Your task to perform on an android device: toggle location history Image 0: 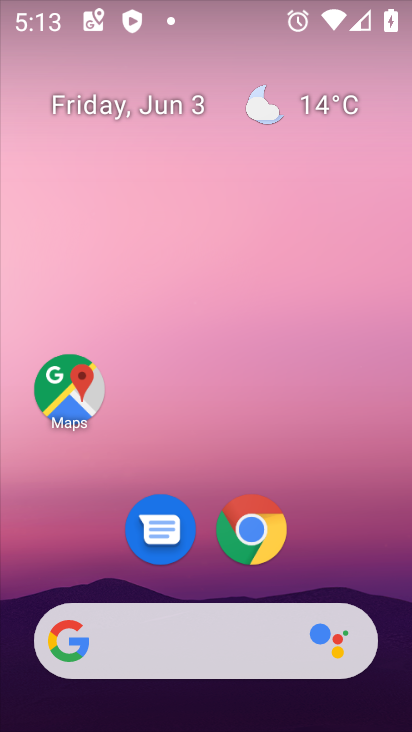
Step 0: drag from (209, 568) to (237, 45)
Your task to perform on an android device: toggle location history Image 1: 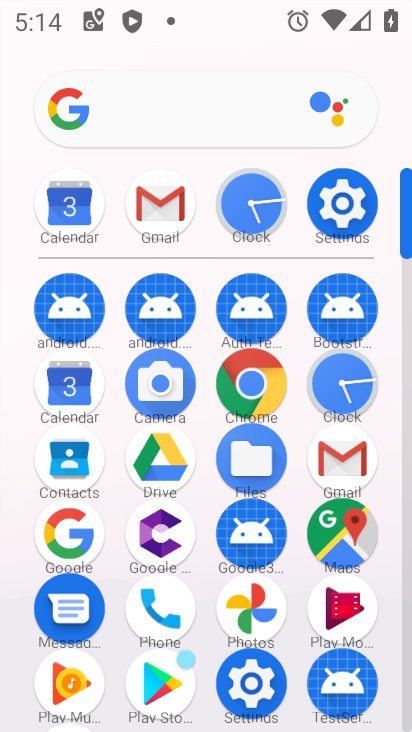
Step 1: click (339, 531)
Your task to perform on an android device: toggle location history Image 2: 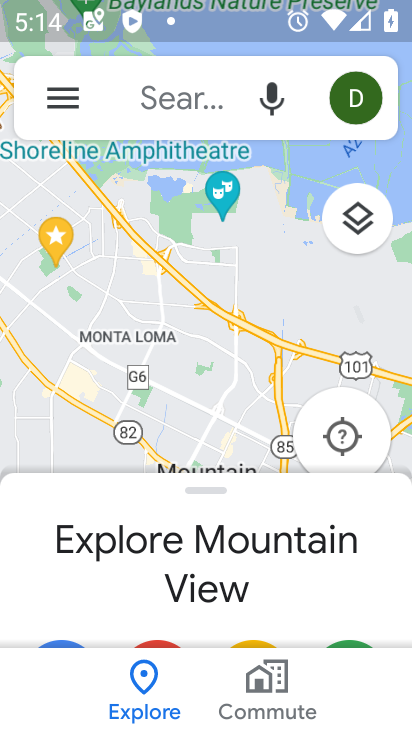
Step 2: click (61, 93)
Your task to perform on an android device: toggle location history Image 3: 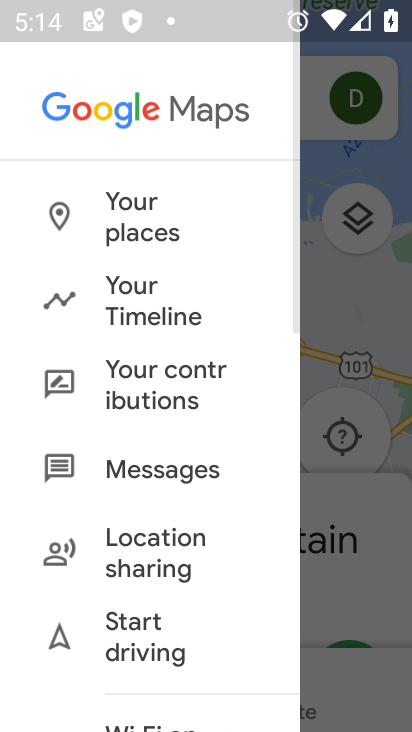
Step 3: drag from (131, 559) to (188, 19)
Your task to perform on an android device: toggle location history Image 4: 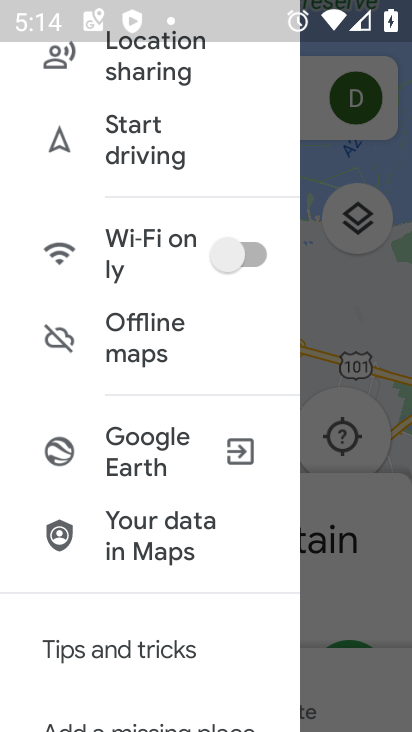
Step 4: drag from (137, 651) to (169, 298)
Your task to perform on an android device: toggle location history Image 5: 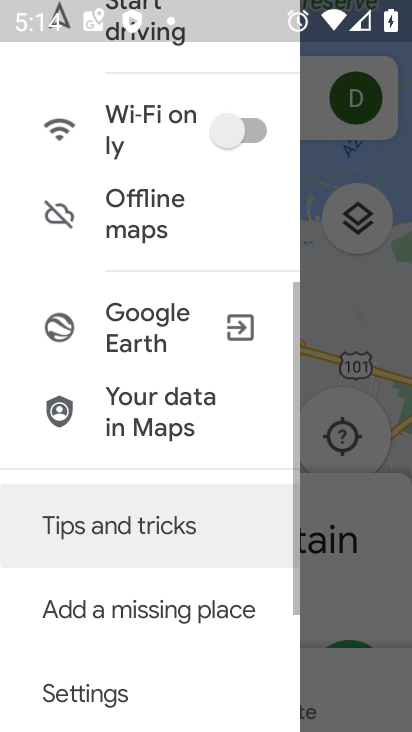
Step 5: click (183, 23)
Your task to perform on an android device: toggle location history Image 6: 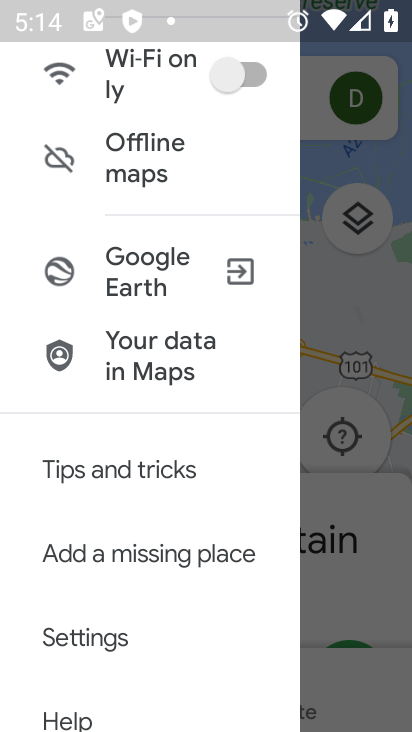
Step 6: click (119, 626)
Your task to perform on an android device: toggle location history Image 7: 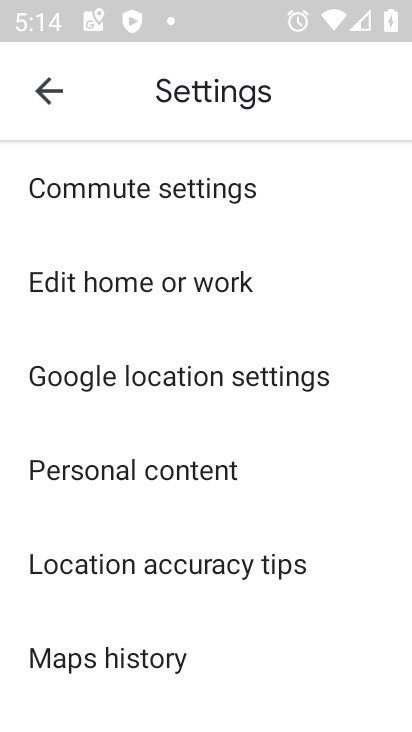
Step 7: click (258, 377)
Your task to perform on an android device: toggle location history Image 8: 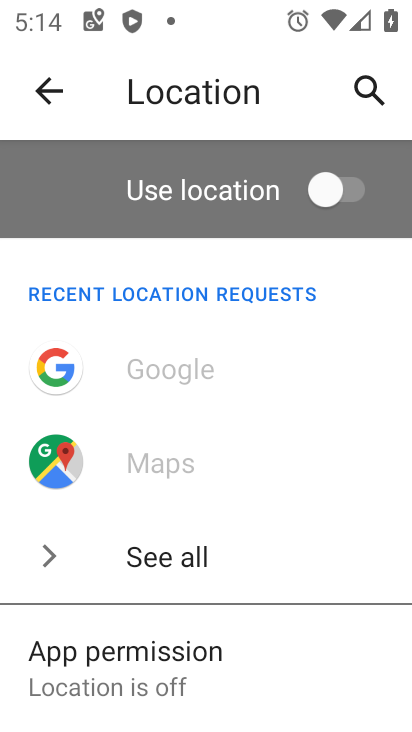
Step 8: drag from (225, 683) to (253, 437)
Your task to perform on an android device: toggle location history Image 9: 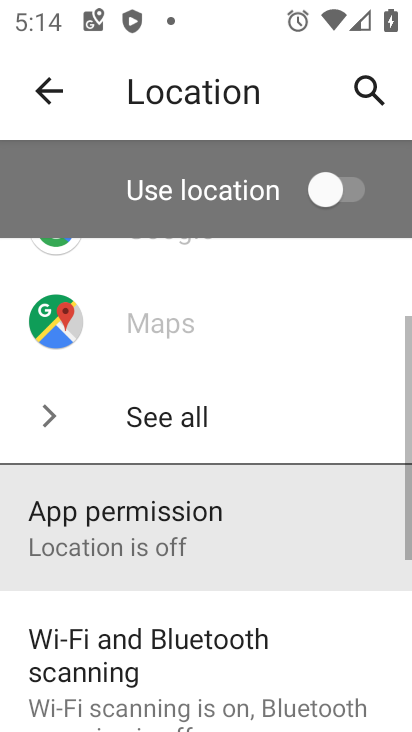
Step 9: drag from (255, 325) to (258, 177)
Your task to perform on an android device: toggle location history Image 10: 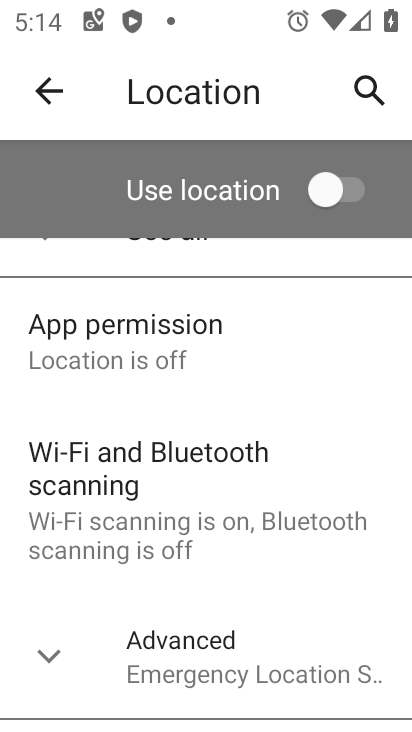
Step 10: click (84, 654)
Your task to perform on an android device: toggle location history Image 11: 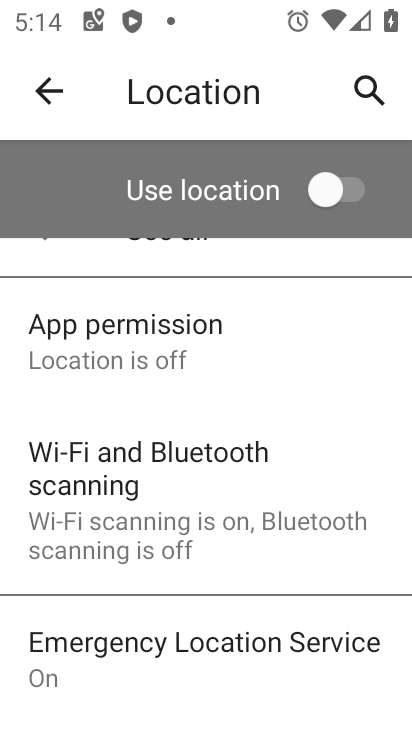
Step 11: drag from (236, 613) to (239, 266)
Your task to perform on an android device: toggle location history Image 12: 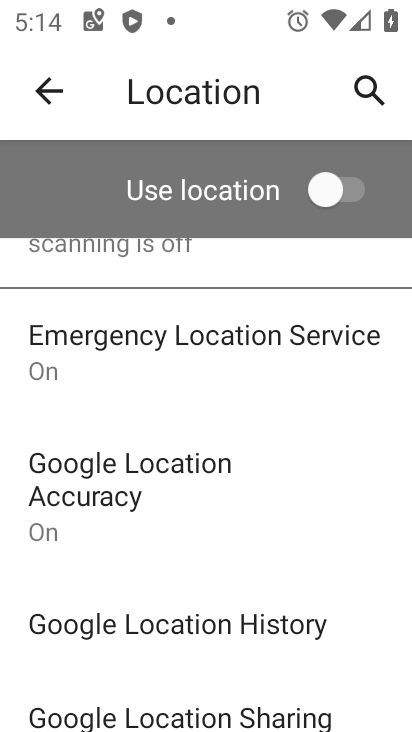
Step 12: click (229, 637)
Your task to perform on an android device: toggle location history Image 13: 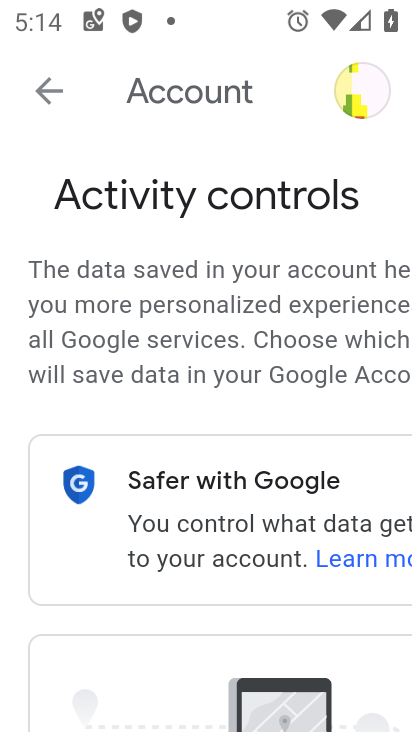
Step 13: drag from (199, 642) to (204, 388)
Your task to perform on an android device: toggle location history Image 14: 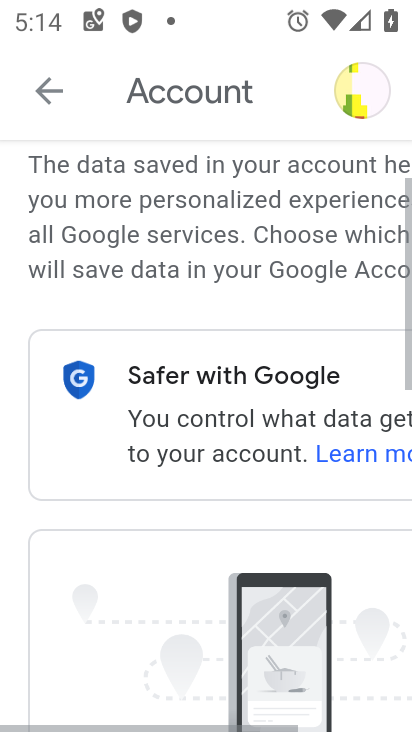
Step 14: drag from (207, 287) to (215, 219)
Your task to perform on an android device: toggle location history Image 15: 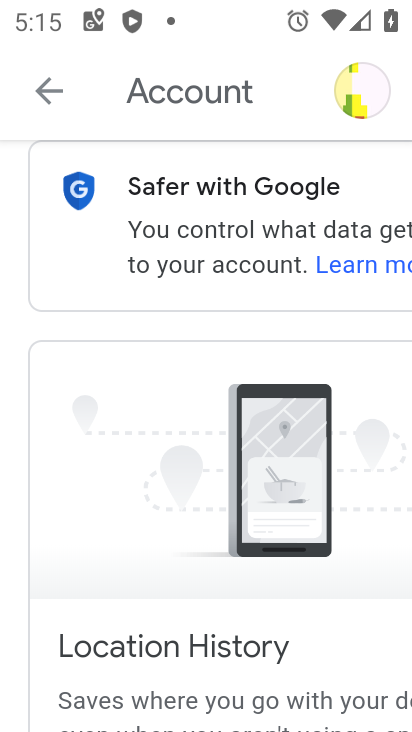
Step 15: drag from (190, 596) to (182, 252)
Your task to perform on an android device: toggle location history Image 16: 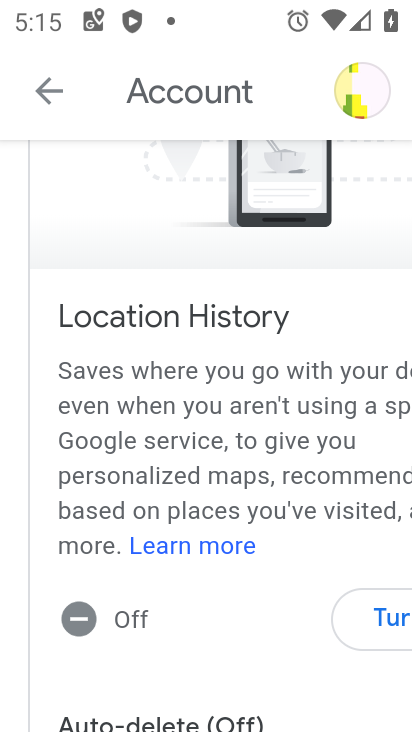
Step 16: click (385, 620)
Your task to perform on an android device: toggle location history Image 17: 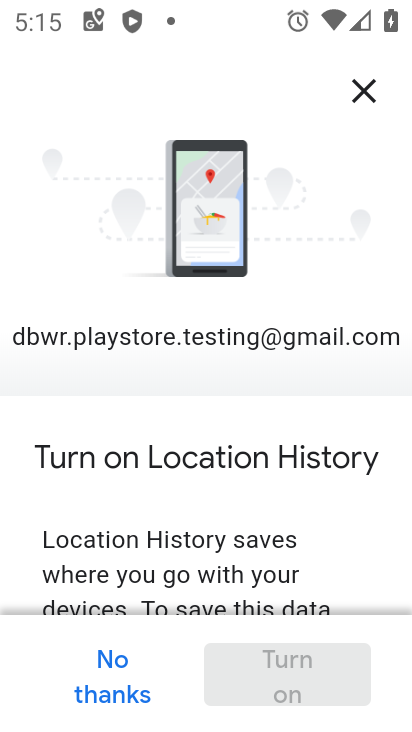
Step 17: drag from (276, 579) to (263, 86)
Your task to perform on an android device: toggle location history Image 18: 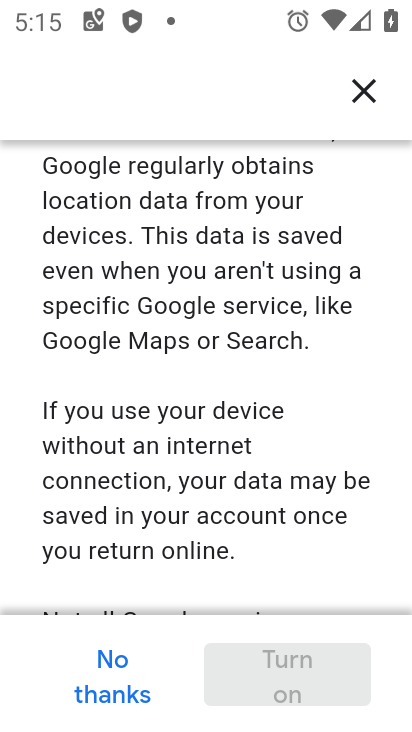
Step 18: drag from (253, 568) to (257, 2)
Your task to perform on an android device: toggle location history Image 19: 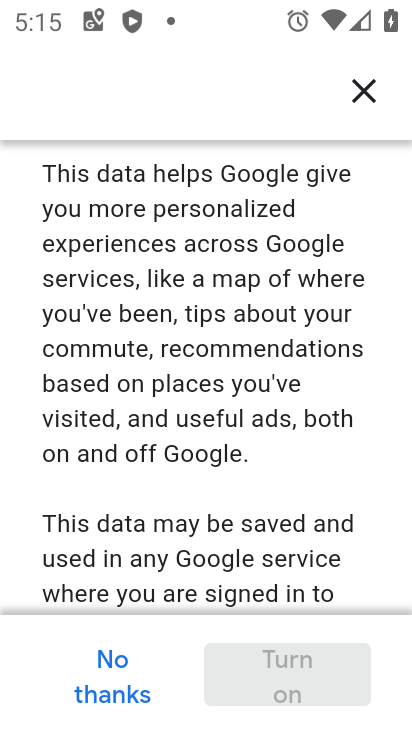
Step 19: drag from (244, 546) to (235, 21)
Your task to perform on an android device: toggle location history Image 20: 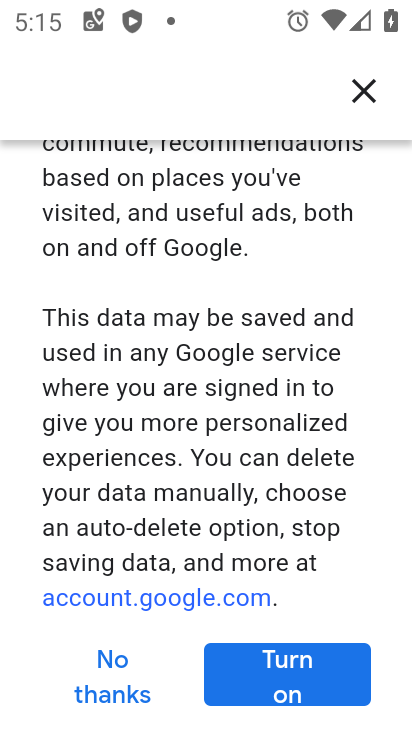
Step 20: click (286, 670)
Your task to perform on an android device: toggle location history Image 21: 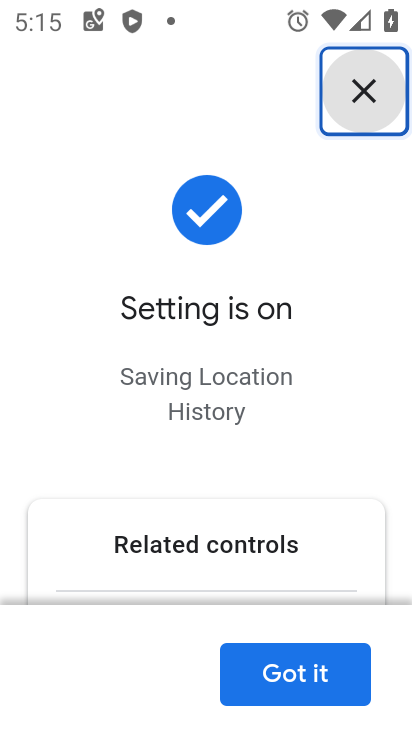
Step 21: click (285, 668)
Your task to perform on an android device: toggle location history Image 22: 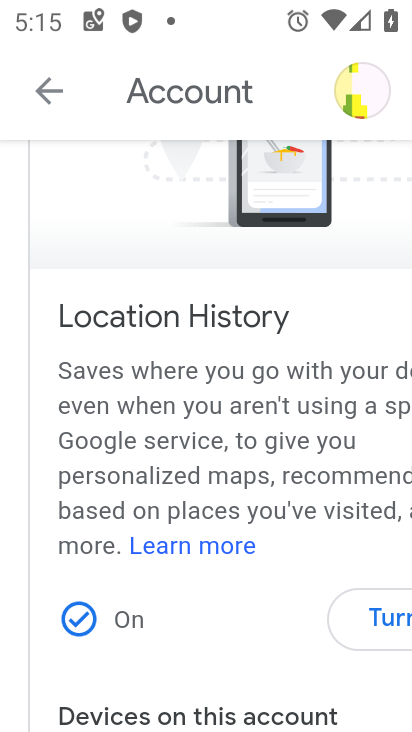
Step 22: press home button
Your task to perform on an android device: toggle location history Image 23: 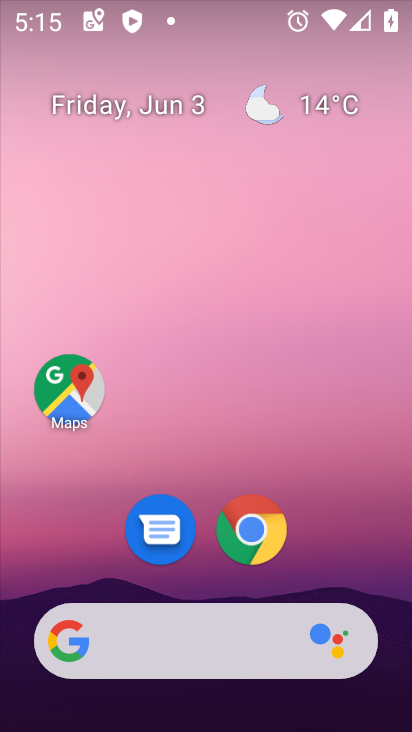
Step 23: drag from (214, 532) to (251, 25)
Your task to perform on an android device: toggle location history Image 24: 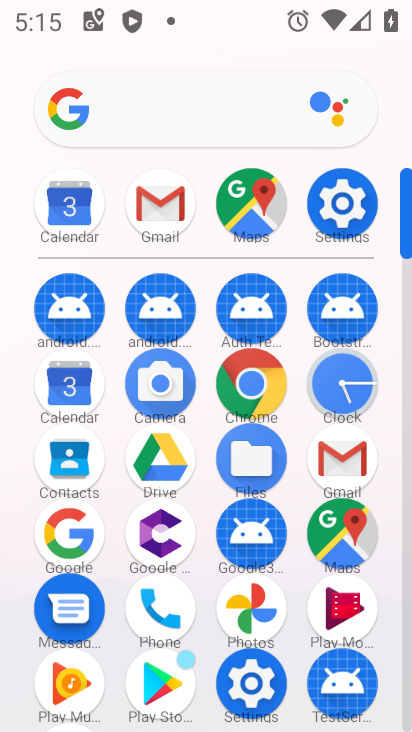
Step 24: click (244, 671)
Your task to perform on an android device: toggle location history Image 25: 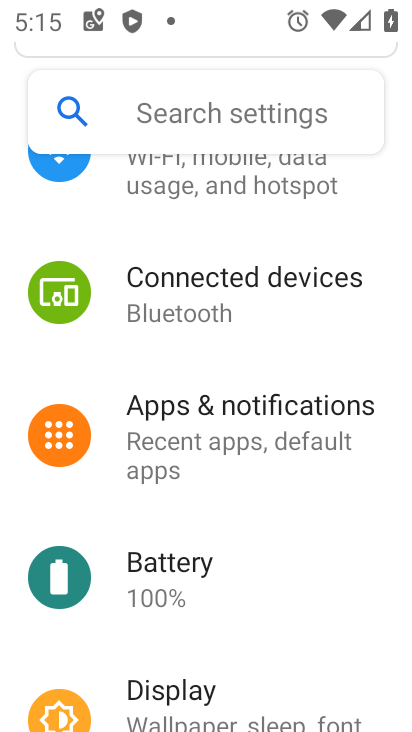
Step 25: drag from (240, 673) to (269, 191)
Your task to perform on an android device: toggle location history Image 26: 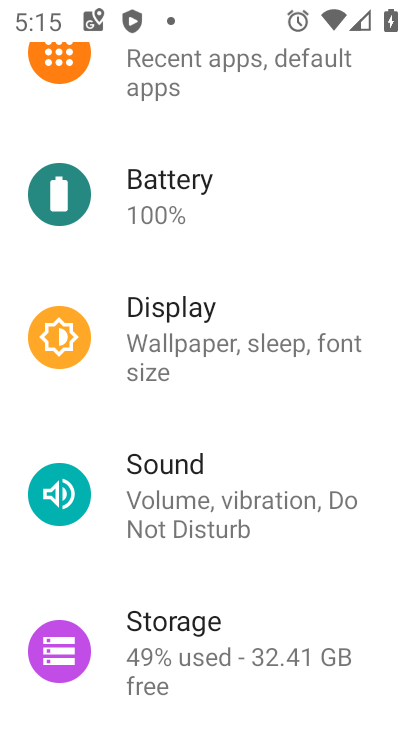
Step 26: drag from (216, 665) to (227, 152)
Your task to perform on an android device: toggle location history Image 27: 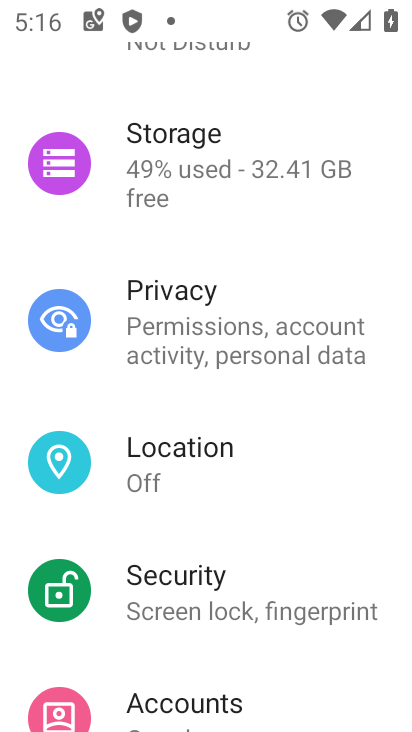
Step 27: click (211, 460)
Your task to perform on an android device: toggle location history Image 28: 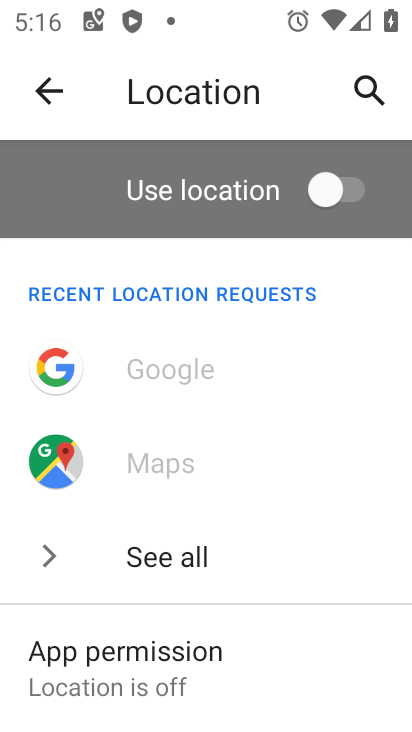
Step 28: drag from (238, 671) to (273, 244)
Your task to perform on an android device: toggle location history Image 29: 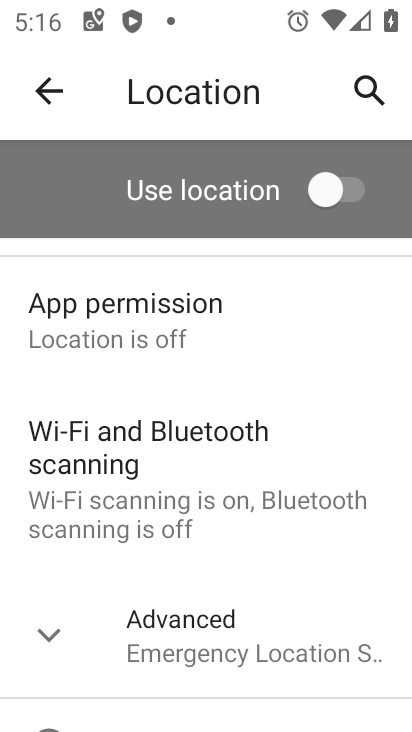
Step 29: click (40, 633)
Your task to perform on an android device: toggle location history Image 30: 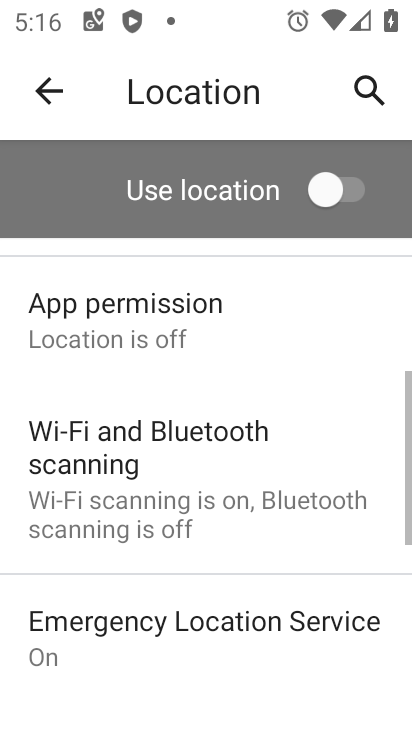
Step 30: drag from (180, 653) to (200, 186)
Your task to perform on an android device: toggle location history Image 31: 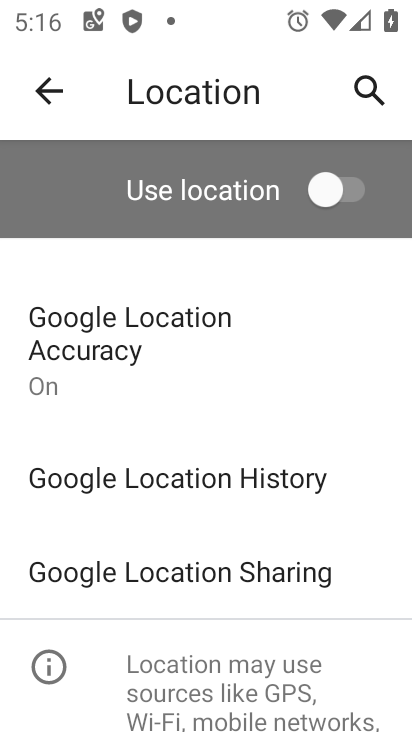
Step 31: click (273, 488)
Your task to perform on an android device: toggle location history Image 32: 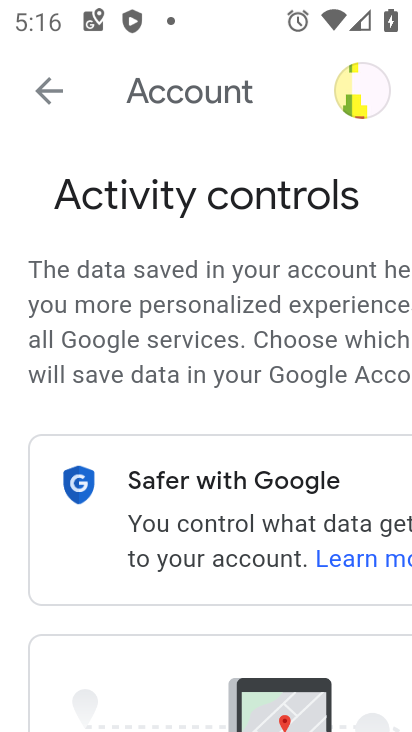
Step 32: drag from (195, 511) to (216, 207)
Your task to perform on an android device: toggle location history Image 33: 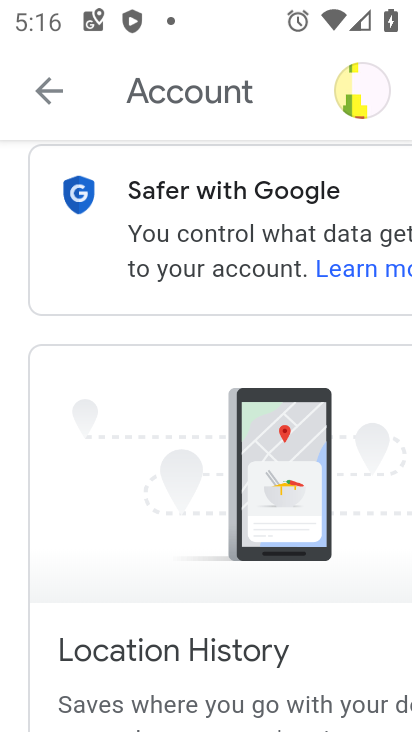
Step 33: drag from (195, 597) to (195, 197)
Your task to perform on an android device: toggle location history Image 34: 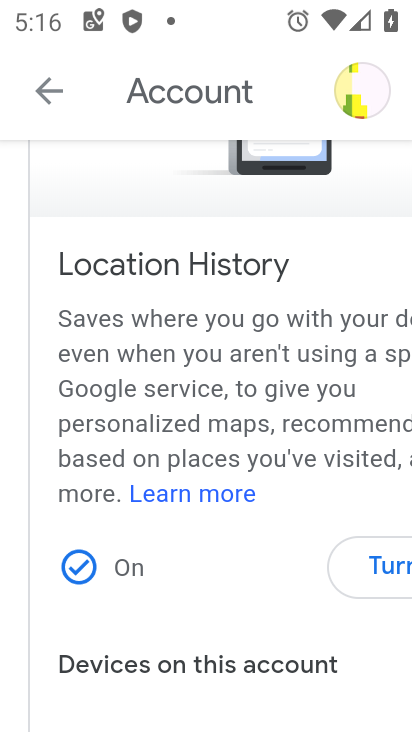
Step 34: click (387, 573)
Your task to perform on an android device: toggle location history Image 35: 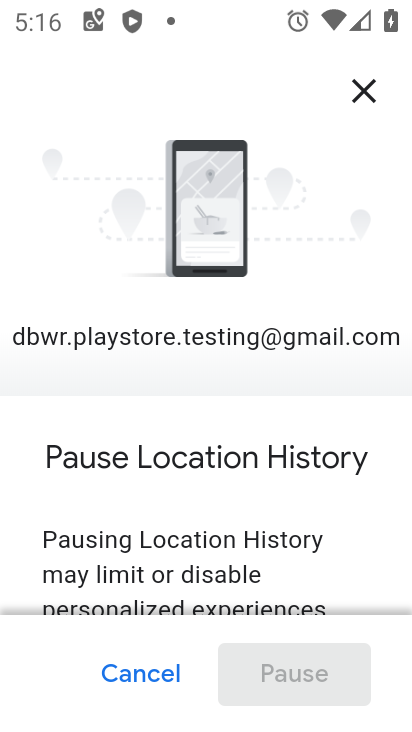
Step 35: drag from (288, 567) to (288, 169)
Your task to perform on an android device: toggle location history Image 36: 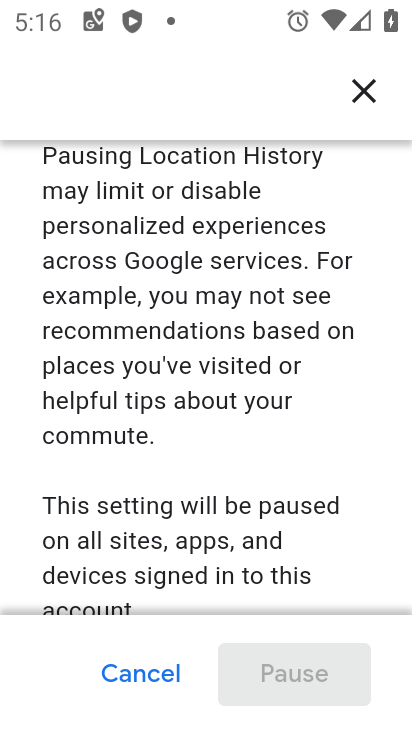
Step 36: drag from (238, 591) to (247, 70)
Your task to perform on an android device: toggle location history Image 37: 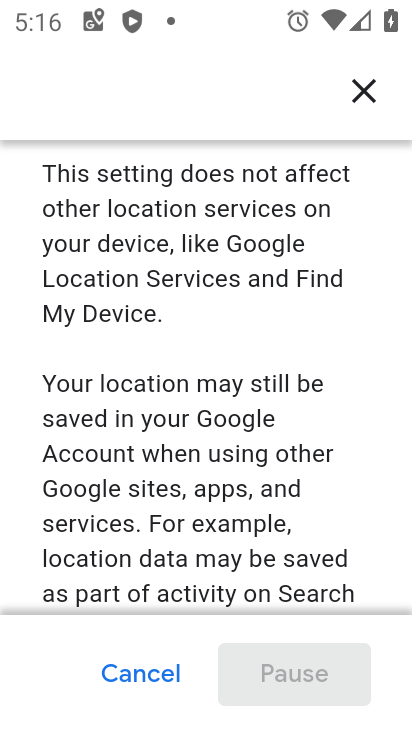
Step 37: click (248, 565)
Your task to perform on an android device: toggle location history Image 38: 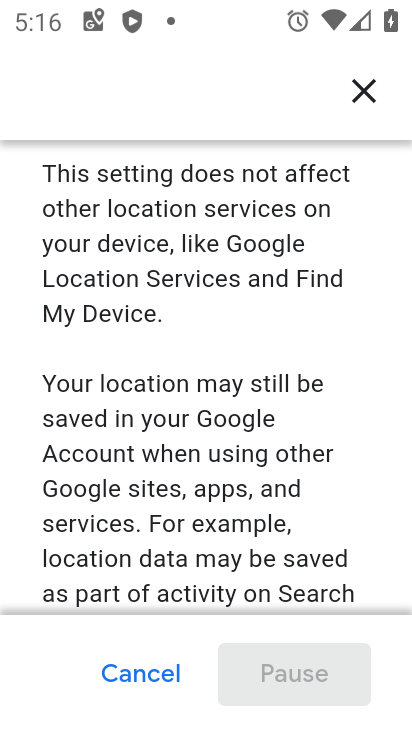
Step 38: drag from (248, 278) to (248, 121)
Your task to perform on an android device: toggle location history Image 39: 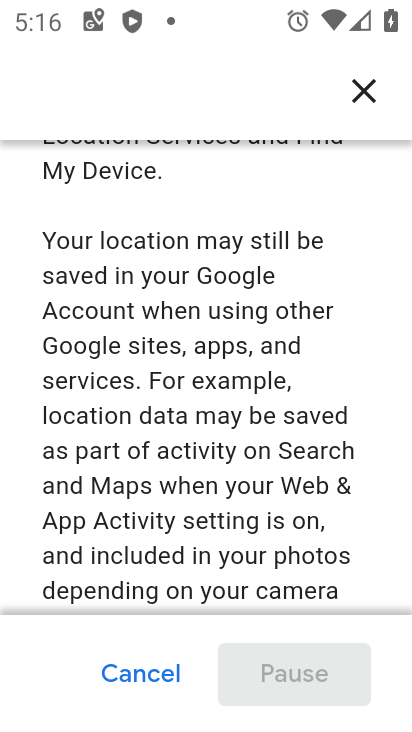
Step 39: drag from (271, 601) to (273, 296)
Your task to perform on an android device: toggle location history Image 40: 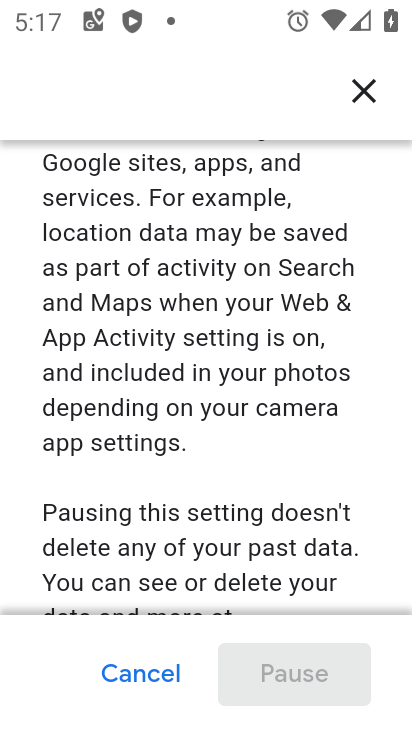
Step 40: drag from (275, 169) to (275, 115)
Your task to perform on an android device: toggle location history Image 41: 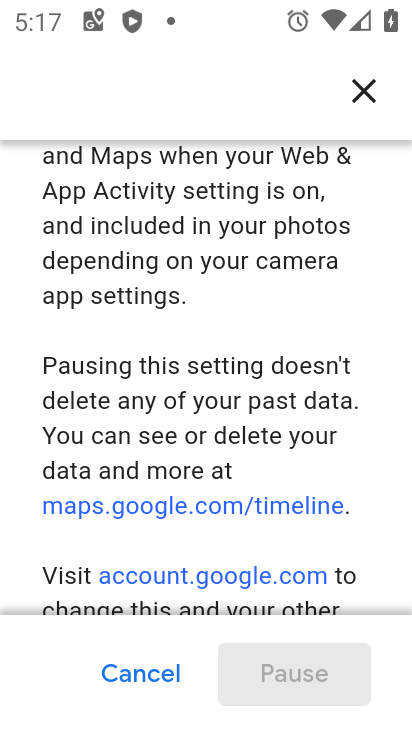
Step 41: drag from (286, 585) to (296, 102)
Your task to perform on an android device: toggle location history Image 42: 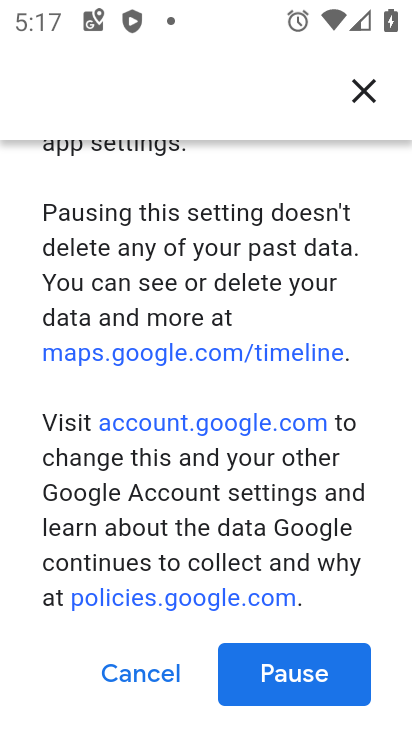
Step 42: click (285, 673)
Your task to perform on an android device: toggle location history Image 43: 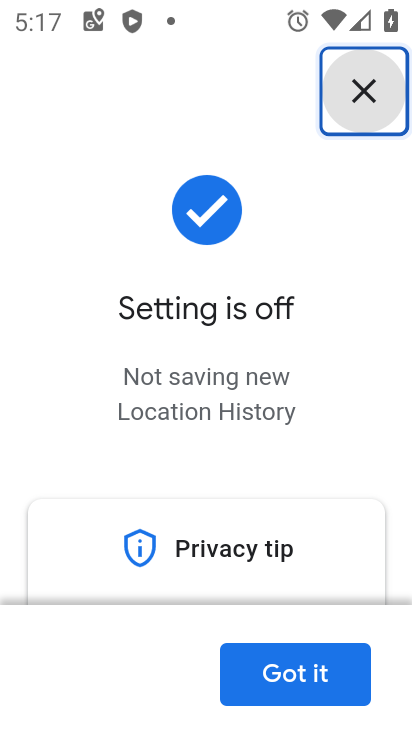
Step 43: click (289, 669)
Your task to perform on an android device: toggle location history Image 44: 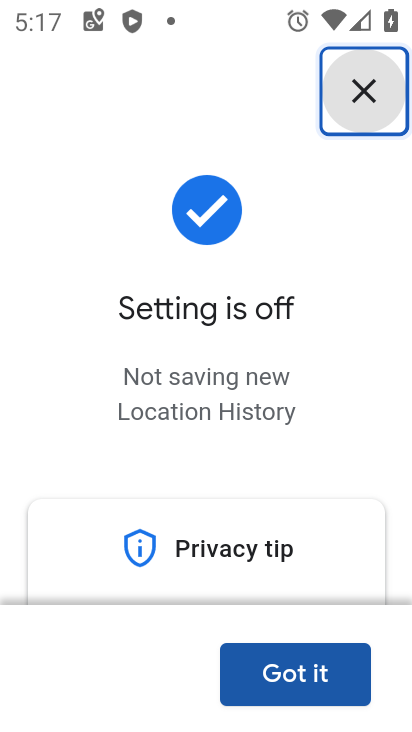
Step 44: task complete